Your task to perform on an android device: Open network settings Image 0: 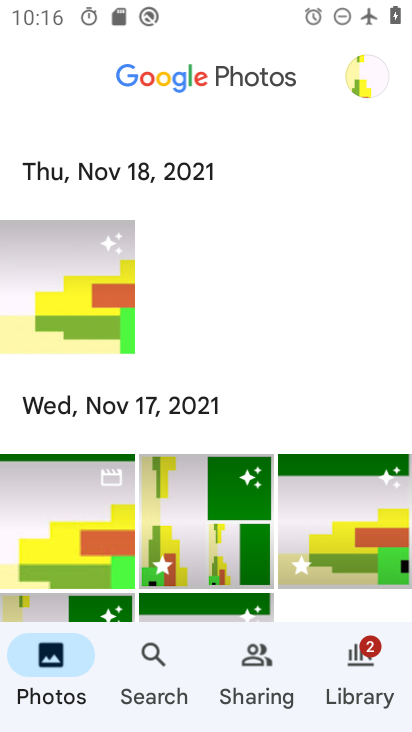
Step 0: press home button
Your task to perform on an android device: Open network settings Image 1: 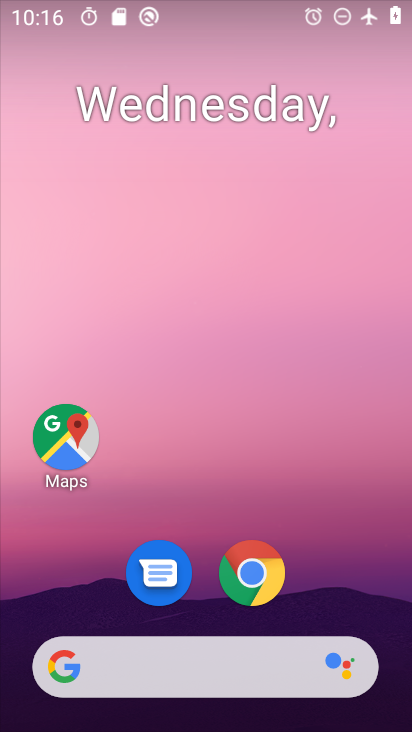
Step 1: drag from (257, 691) to (328, 277)
Your task to perform on an android device: Open network settings Image 2: 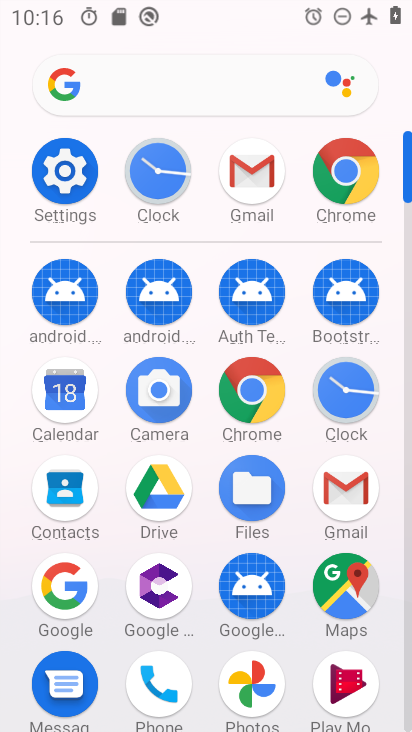
Step 2: click (76, 190)
Your task to perform on an android device: Open network settings Image 3: 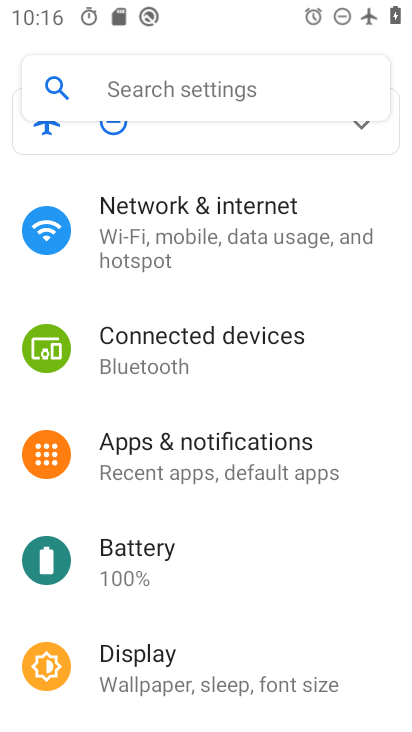
Step 3: click (246, 247)
Your task to perform on an android device: Open network settings Image 4: 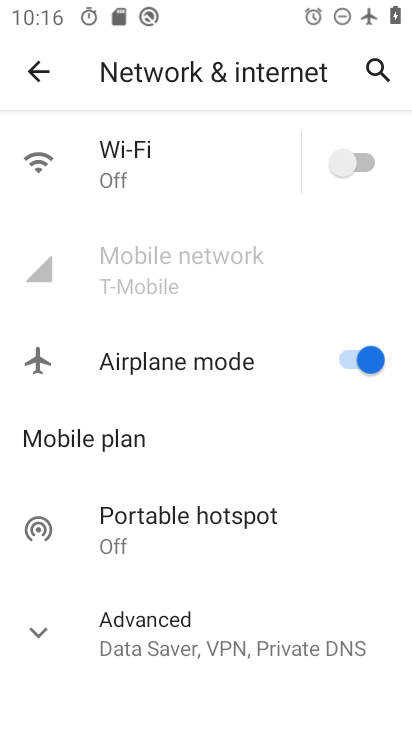
Step 4: click (240, 250)
Your task to perform on an android device: Open network settings Image 5: 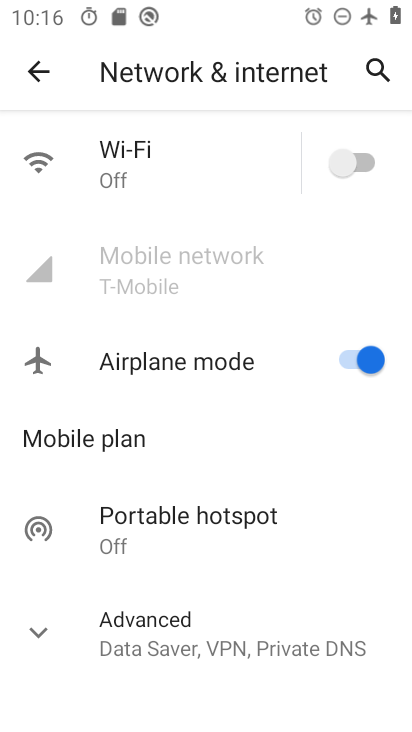
Step 5: task complete